Your task to perform on an android device: Open internet settings Image 0: 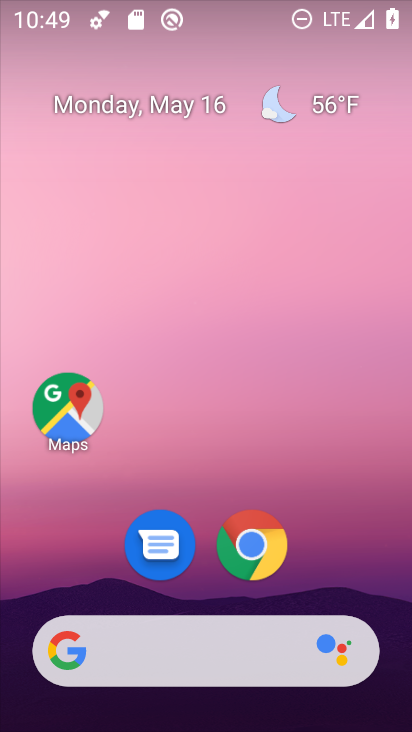
Step 0: drag from (332, 550) to (251, 70)
Your task to perform on an android device: Open internet settings Image 1: 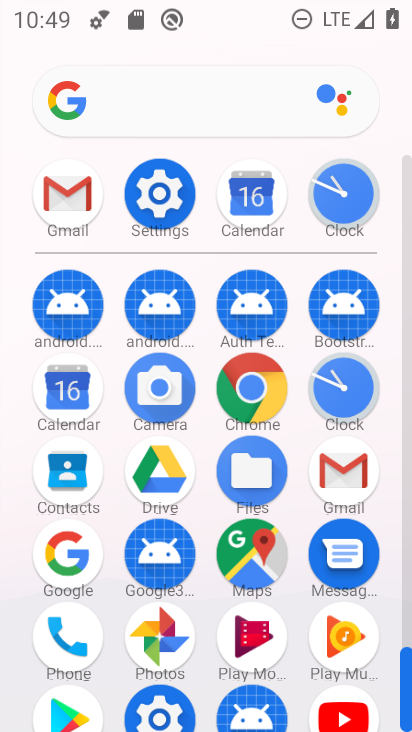
Step 1: click (163, 191)
Your task to perform on an android device: Open internet settings Image 2: 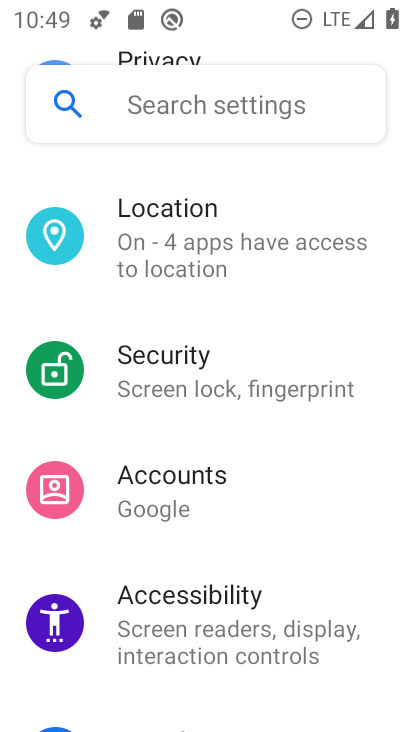
Step 2: drag from (207, 272) to (212, 408)
Your task to perform on an android device: Open internet settings Image 3: 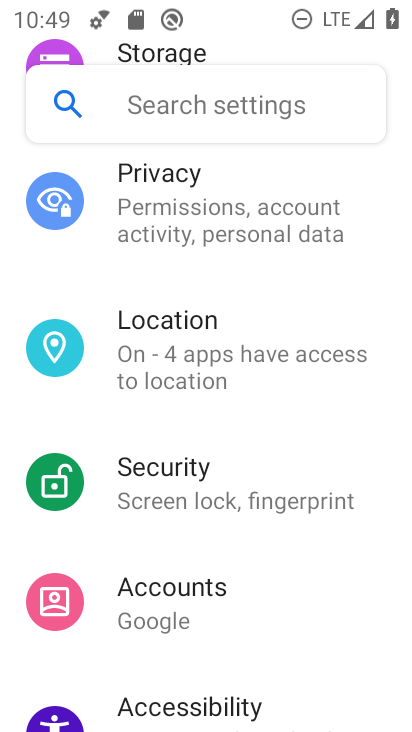
Step 3: drag from (209, 279) to (217, 474)
Your task to perform on an android device: Open internet settings Image 4: 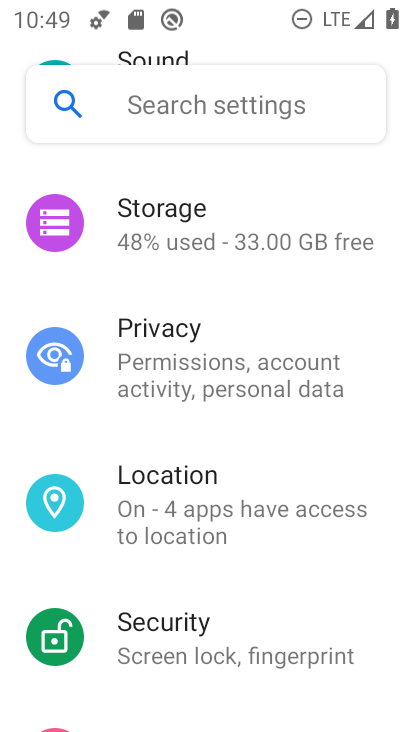
Step 4: drag from (219, 303) to (232, 505)
Your task to perform on an android device: Open internet settings Image 5: 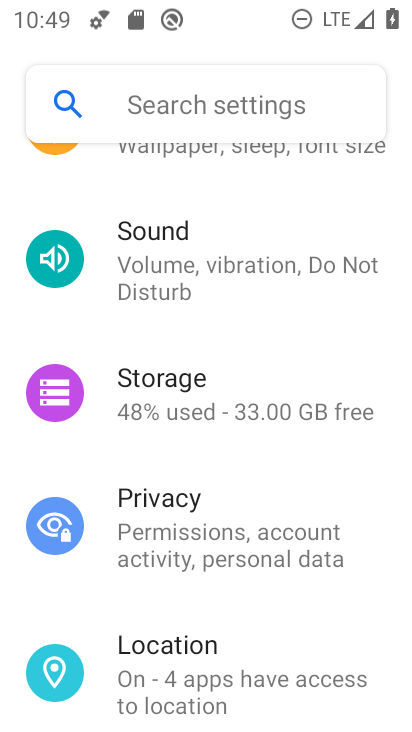
Step 5: drag from (227, 314) to (247, 488)
Your task to perform on an android device: Open internet settings Image 6: 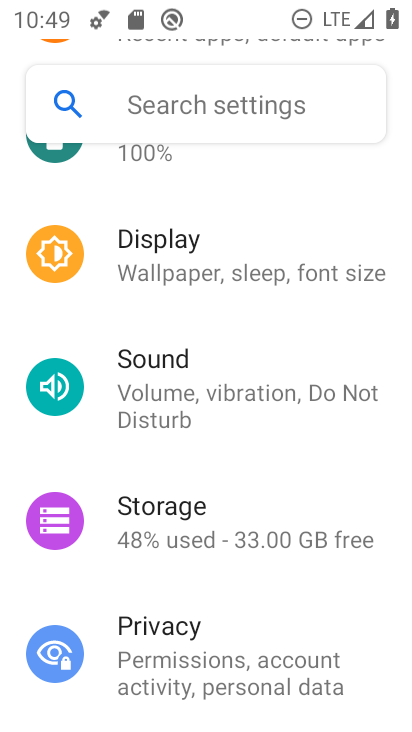
Step 6: drag from (241, 328) to (253, 501)
Your task to perform on an android device: Open internet settings Image 7: 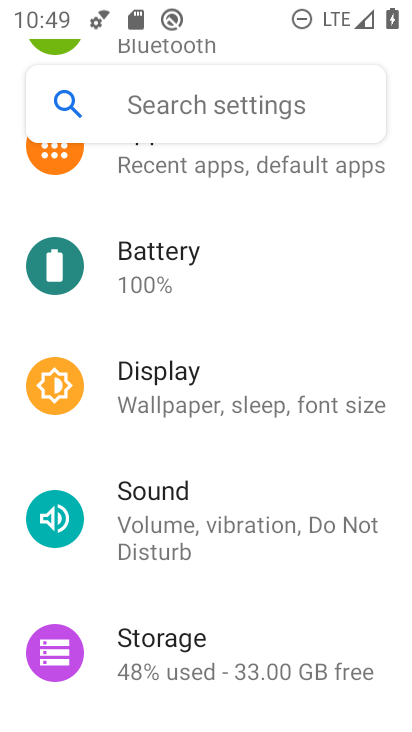
Step 7: drag from (257, 306) to (251, 513)
Your task to perform on an android device: Open internet settings Image 8: 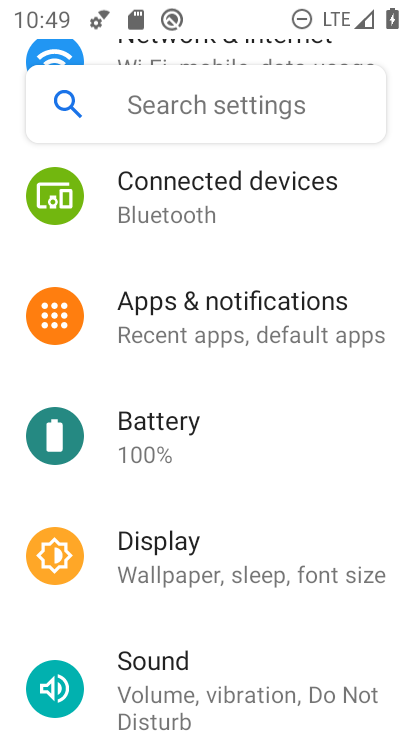
Step 8: drag from (231, 243) to (242, 463)
Your task to perform on an android device: Open internet settings Image 9: 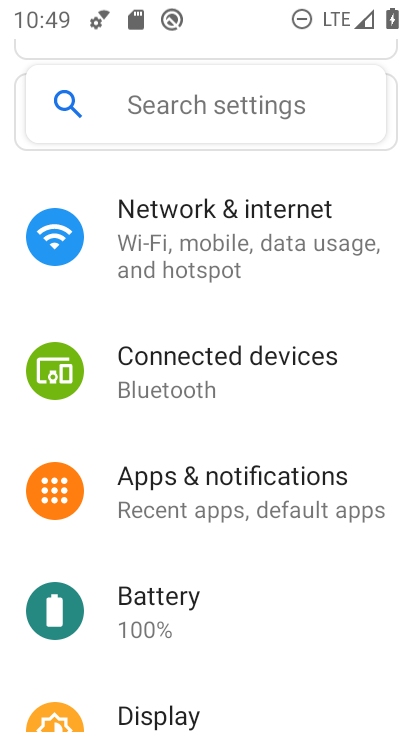
Step 9: click (209, 216)
Your task to perform on an android device: Open internet settings Image 10: 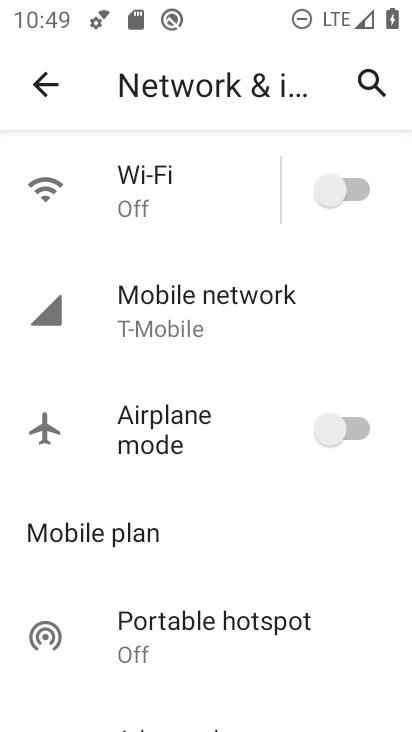
Step 10: task complete